Your task to perform on an android device: turn off javascript in the chrome app Image 0: 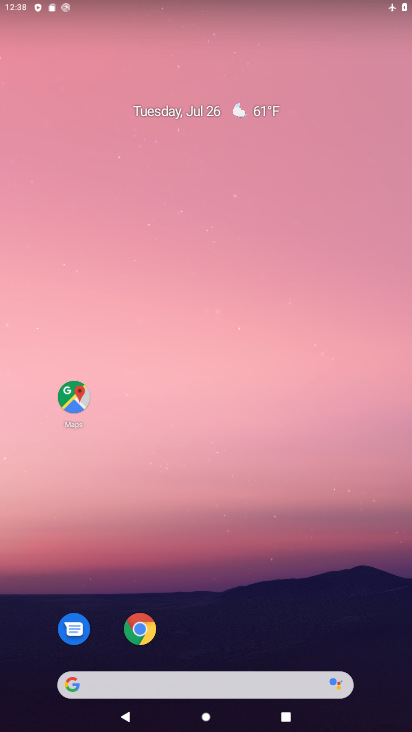
Step 0: drag from (199, 664) to (193, 57)
Your task to perform on an android device: turn off javascript in the chrome app Image 1: 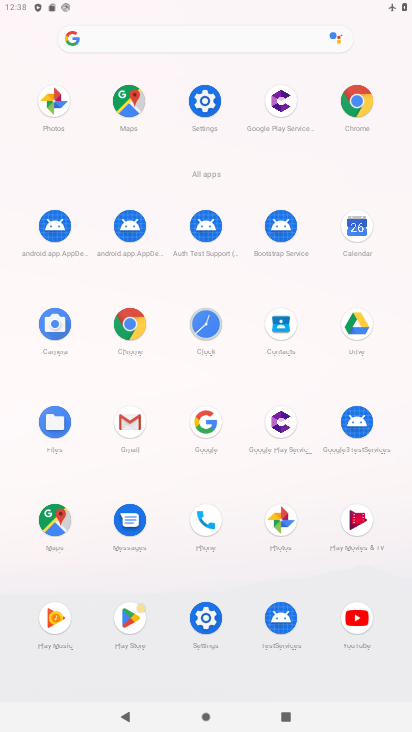
Step 1: click (137, 325)
Your task to perform on an android device: turn off javascript in the chrome app Image 2: 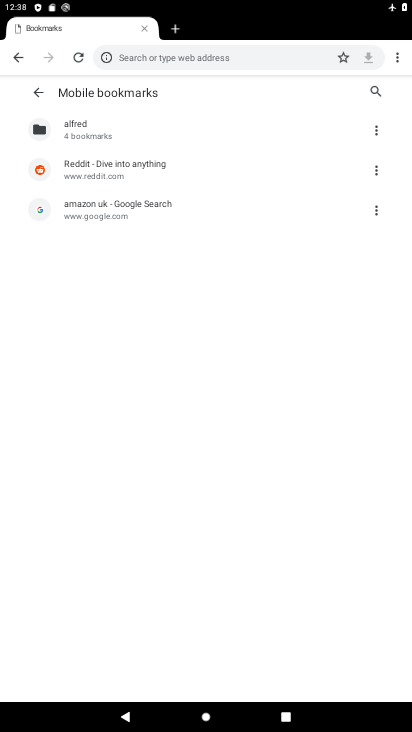
Step 2: drag from (394, 56) to (274, 257)
Your task to perform on an android device: turn off javascript in the chrome app Image 3: 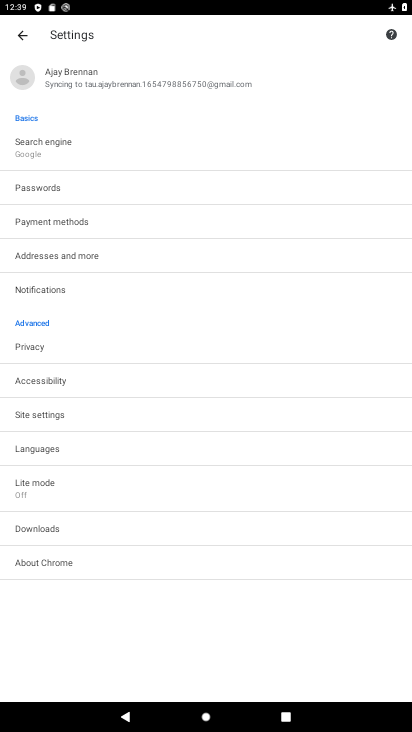
Step 3: click (63, 415)
Your task to perform on an android device: turn off javascript in the chrome app Image 4: 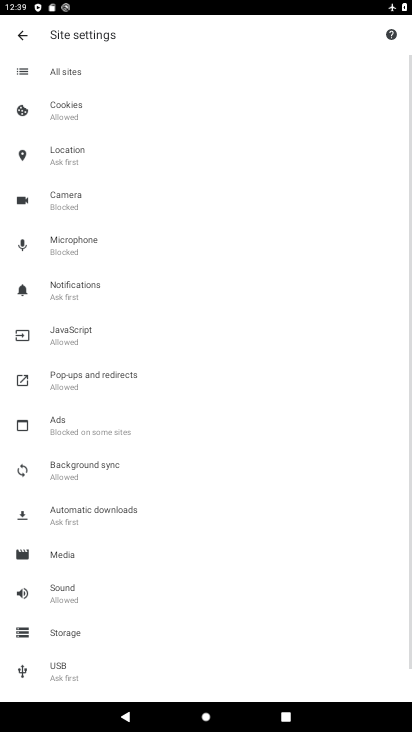
Step 4: click (71, 332)
Your task to perform on an android device: turn off javascript in the chrome app Image 5: 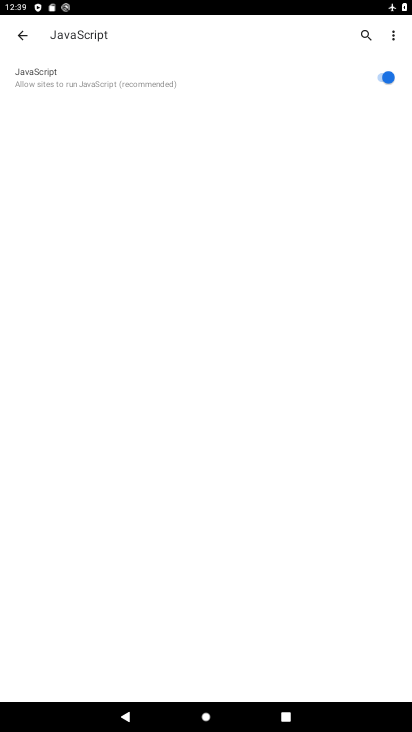
Step 5: click (383, 75)
Your task to perform on an android device: turn off javascript in the chrome app Image 6: 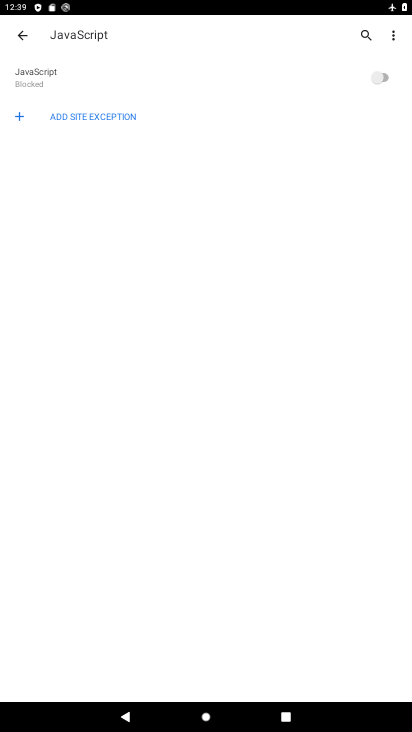
Step 6: task complete